Your task to perform on an android device: turn pop-ups on in chrome Image 0: 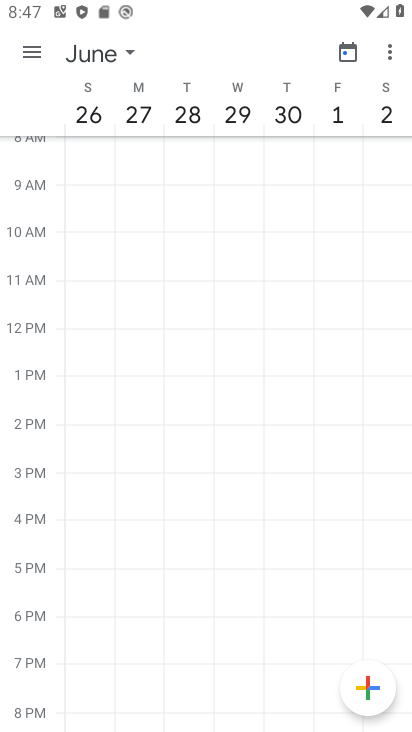
Step 0: press home button
Your task to perform on an android device: turn pop-ups on in chrome Image 1: 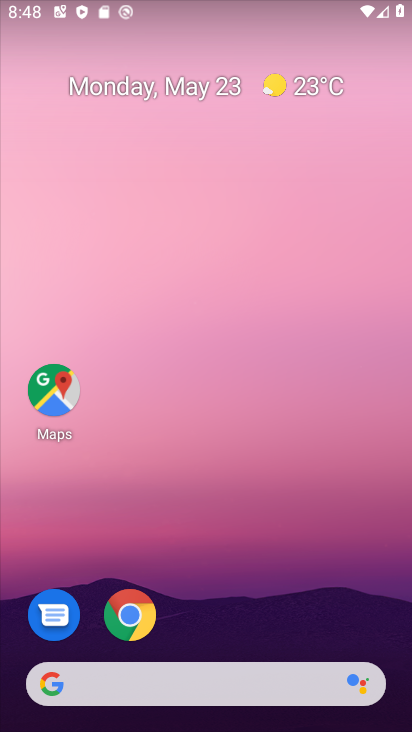
Step 1: click (132, 617)
Your task to perform on an android device: turn pop-ups on in chrome Image 2: 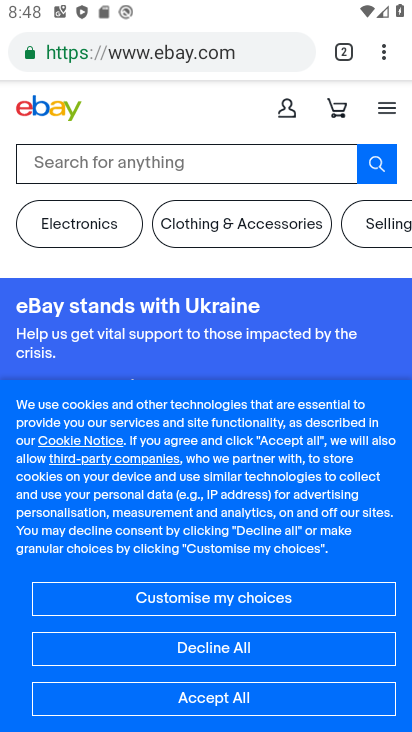
Step 2: click (383, 49)
Your task to perform on an android device: turn pop-ups on in chrome Image 3: 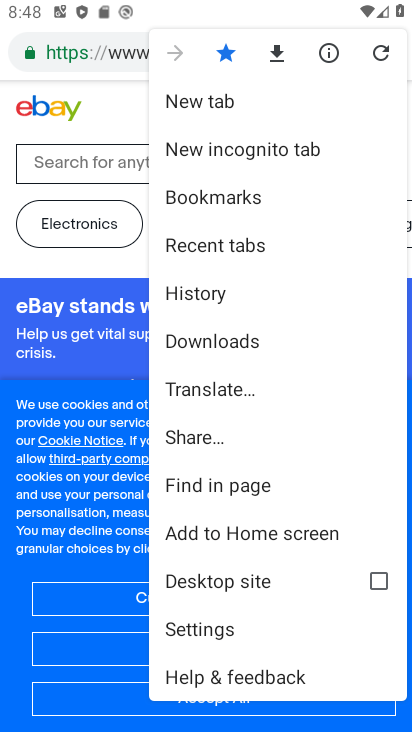
Step 3: click (217, 630)
Your task to perform on an android device: turn pop-ups on in chrome Image 4: 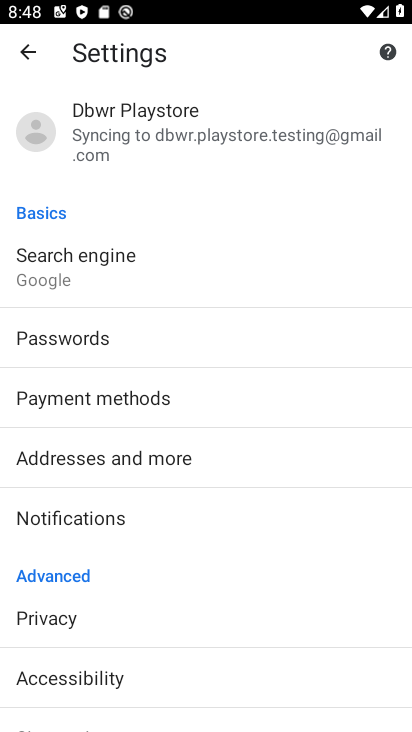
Step 4: drag from (116, 598) to (155, 513)
Your task to perform on an android device: turn pop-ups on in chrome Image 5: 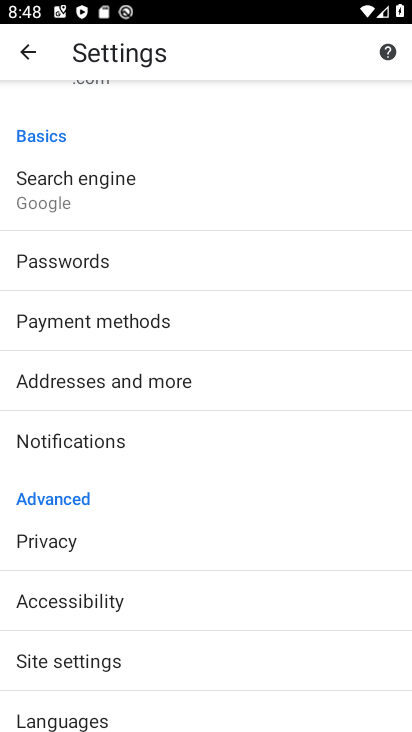
Step 5: drag from (135, 634) to (176, 551)
Your task to perform on an android device: turn pop-ups on in chrome Image 6: 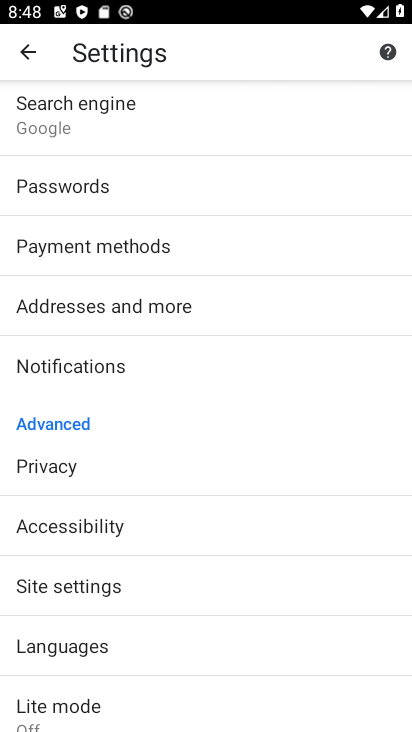
Step 6: click (98, 592)
Your task to perform on an android device: turn pop-ups on in chrome Image 7: 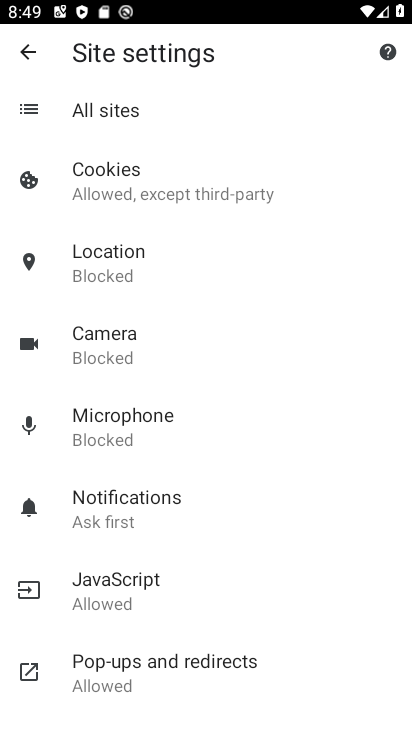
Step 7: click (187, 656)
Your task to perform on an android device: turn pop-ups on in chrome Image 8: 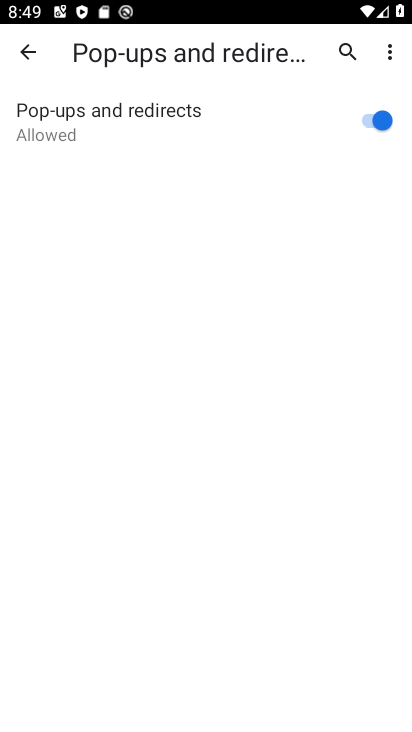
Step 8: task complete